Your task to perform on an android device: open a bookmark in the chrome app Image 0: 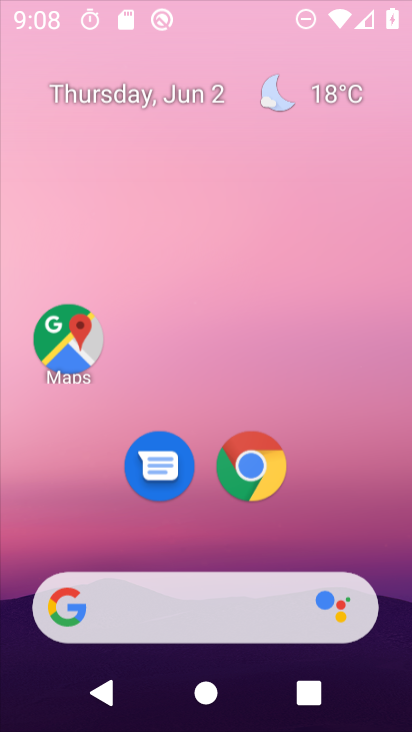
Step 0: press home button
Your task to perform on an android device: open a bookmark in the chrome app Image 1: 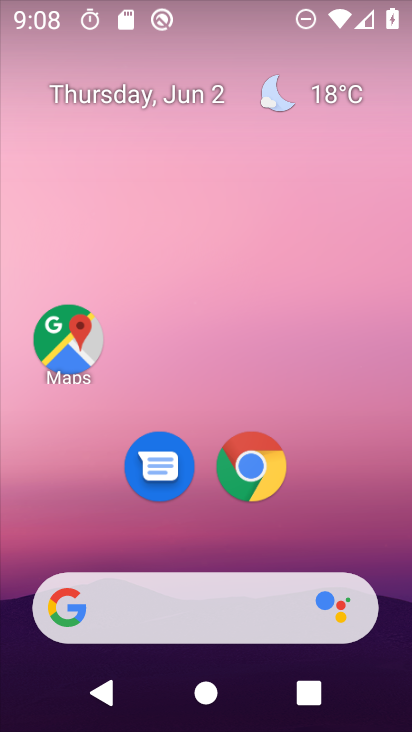
Step 1: click (258, 467)
Your task to perform on an android device: open a bookmark in the chrome app Image 2: 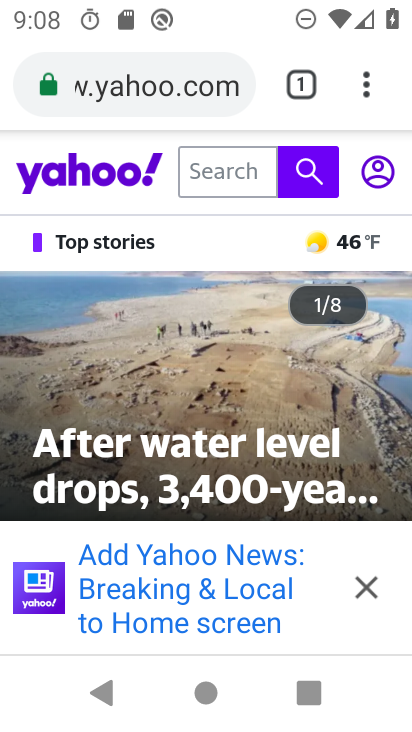
Step 2: drag from (368, 88) to (201, 435)
Your task to perform on an android device: open a bookmark in the chrome app Image 3: 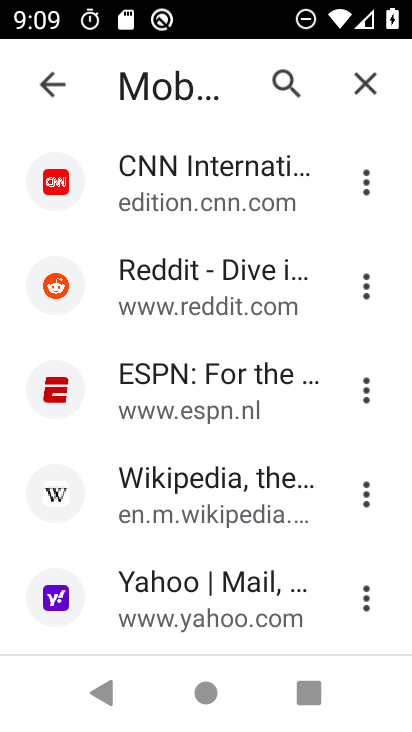
Step 3: click (208, 196)
Your task to perform on an android device: open a bookmark in the chrome app Image 4: 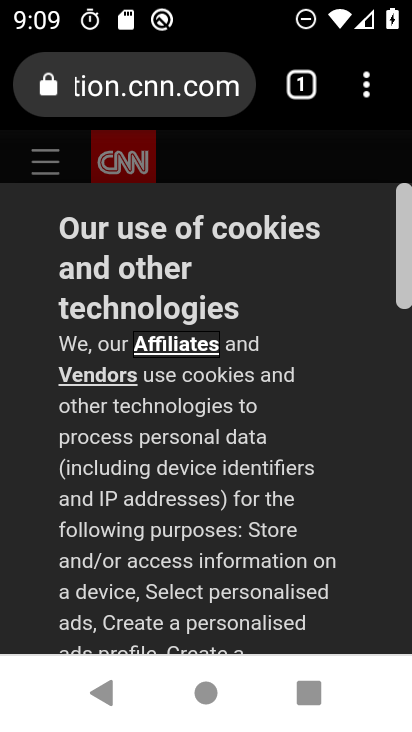
Step 4: task complete